Your task to perform on an android device: Add "amazon basics triple a" to the cart on ebay, then select checkout. Image 0: 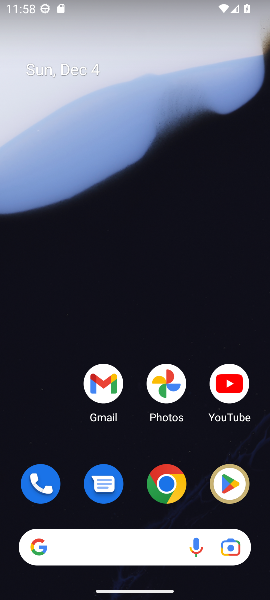
Step 0: click (173, 491)
Your task to perform on an android device: Add "amazon basics triple a" to the cart on ebay, then select checkout. Image 1: 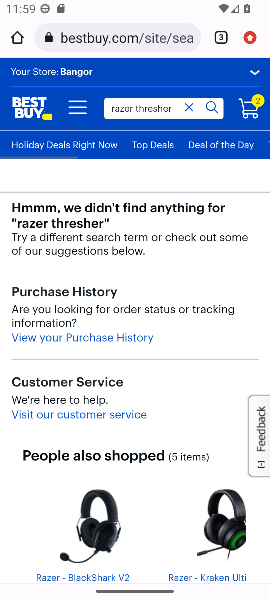
Step 1: click (113, 32)
Your task to perform on an android device: Add "amazon basics triple a" to the cart on ebay, then select checkout. Image 2: 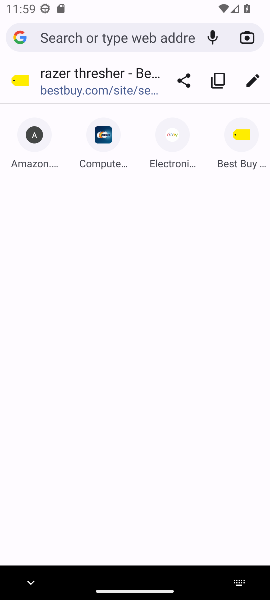
Step 2: type "ebay.com"
Your task to perform on an android device: Add "amazon basics triple a" to the cart on ebay, then select checkout. Image 3: 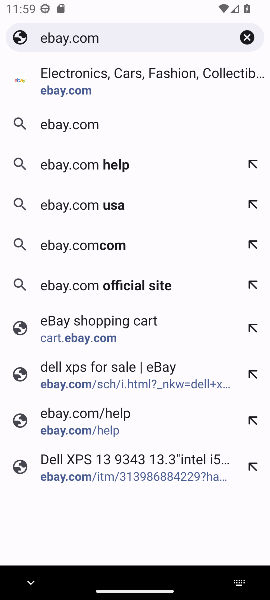
Step 3: click (56, 94)
Your task to perform on an android device: Add "amazon basics triple a" to the cart on ebay, then select checkout. Image 4: 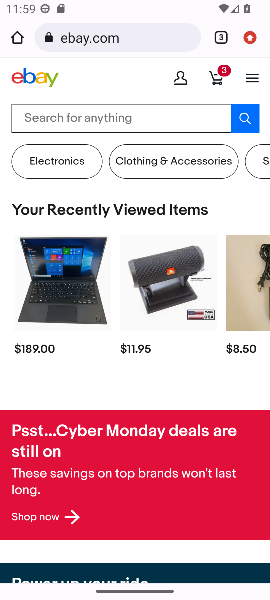
Step 4: click (76, 115)
Your task to perform on an android device: Add "amazon basics triple a" to the cart on ebay, then select checkout. Image 5: 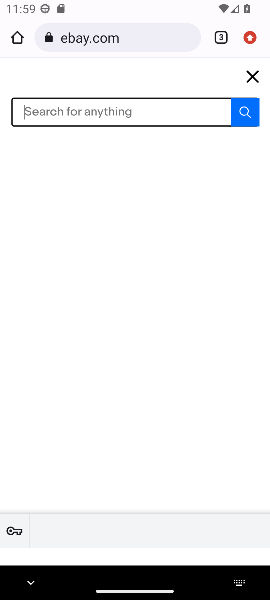
Step 5: type "amazon basics triple a"
Your task to perform on an android device: Add "amazon basics triple a" to the cart on ebay, then select checkout. Image 6: 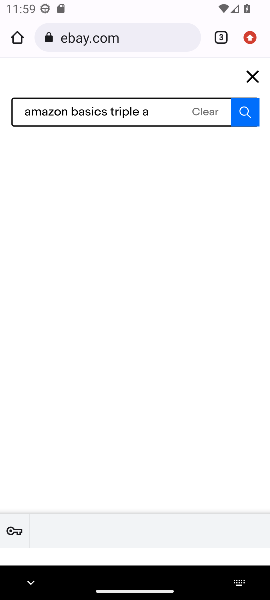
Step 6: click (236, 107)
Your task to perform on an android device: Add "amazon basics triple a" to the cart on ebay, then select checkout. Image 7: 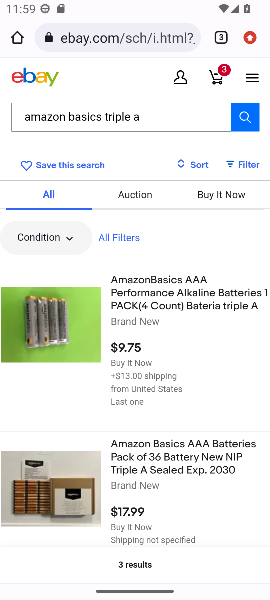
Step 7: click (158, 318)
Your task to perform on an android device: Add "amazon basics triple a" to the cart on ebay, then select checkout. Image 8: 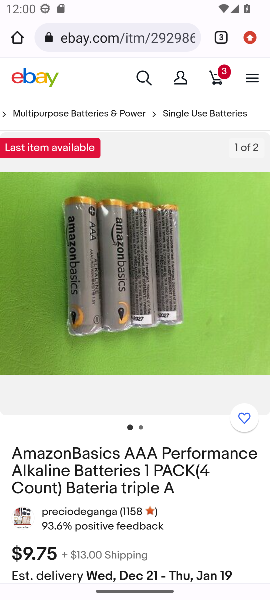
Step 8: drag from (149, 409) to (135, 128)
Your task to perform on an android device: Add "amazon basics triple a" to the cart on ebay, then select checkout. Image 9: 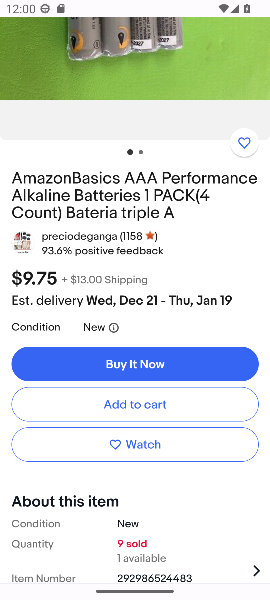
Step 9: click (110, 403)
Your task to perform on an android device: Add "amazon basics triple a" to the cart on ebay, then select checkout. Image 10: 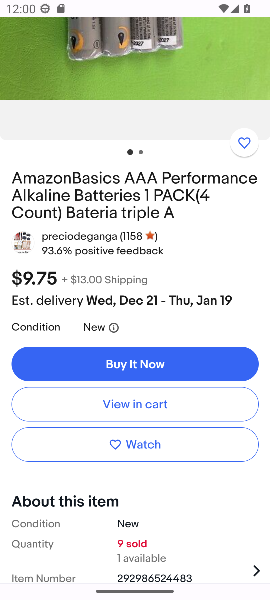
Step 10: click (110, 401)
Your task to perform on an android device: Add "amazon basics triple a" to the cart on ebay, then select checkout. Image 11: 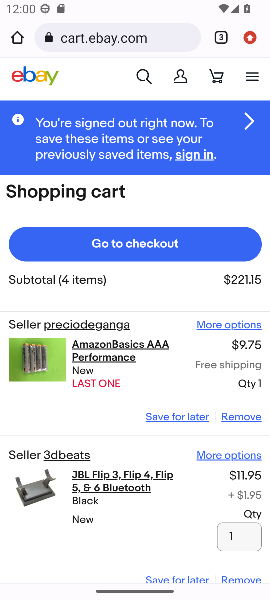
Step 11: click (110, 242)
Your task to perform on an android device: Add "amazon basics triple a" to the cart on ebay, then select checkout. Image 12: 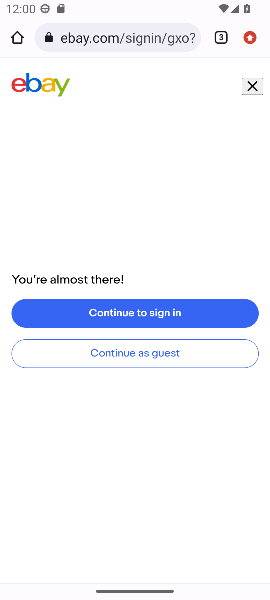
Step 12: task complete